Your task to perform on an android device: turn off sleep mode Image 0: 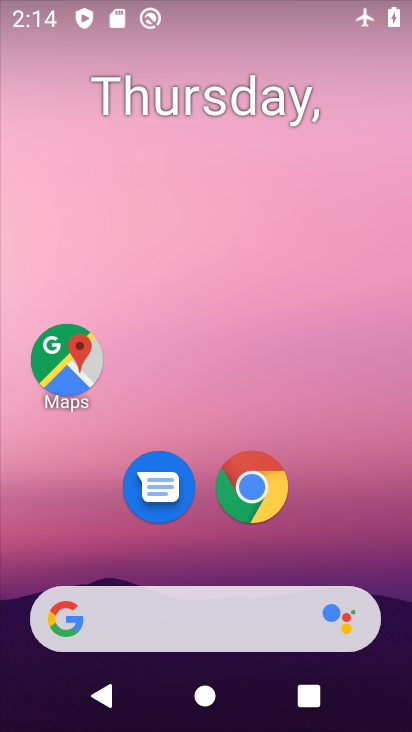
Step 0: drag from (294, 427) to (300, 35)
Your task to perform on an android device: turn off sleep mode Image 1: 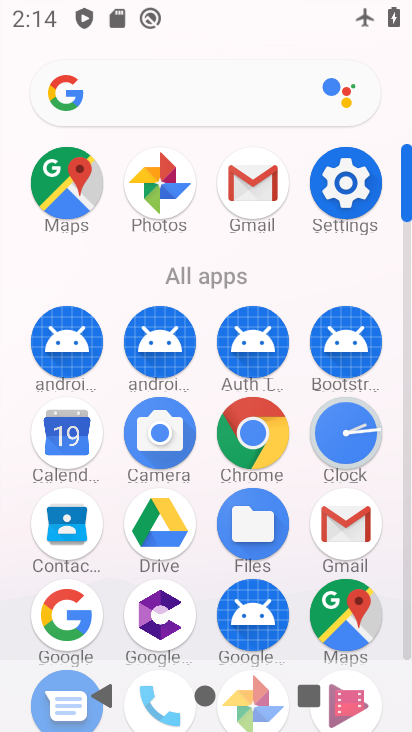
Step 1: click (363, 187)
Your task to perform on an android device: turn off sleep mode Image 2: 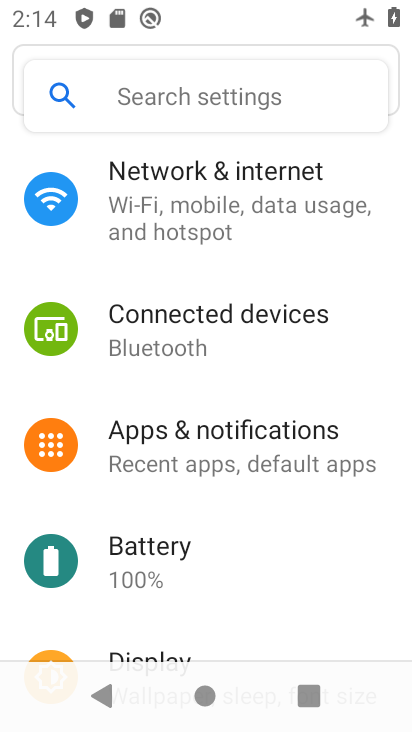
Step 2: drag from (309, 535) to (386, 301)
Your task to perform on an android device: turn off sleep mode Image 3: 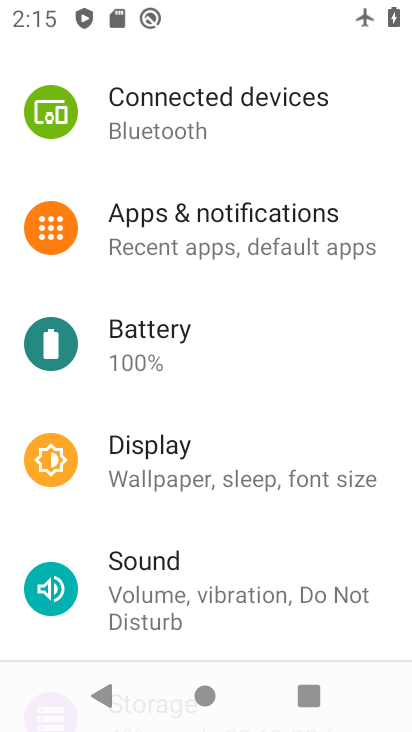
Step 3: click (238, 487)
Your task to perform on an android device: turn off sleep mode Image 4: 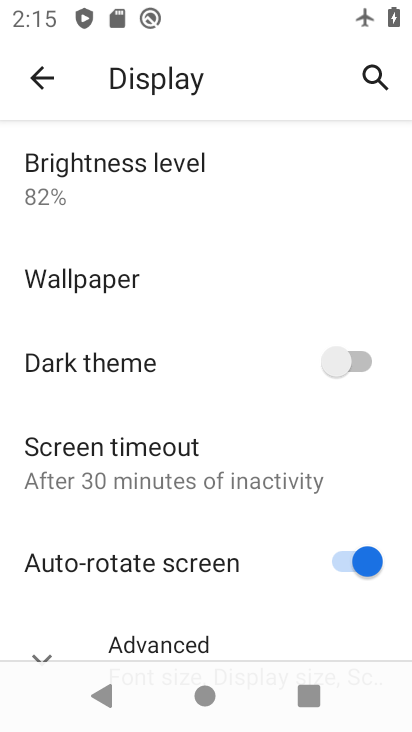
Step 4: drag from (226, 628) to (334, 282)
Your task to perform on an android device: turn off sleep mode Image 5: 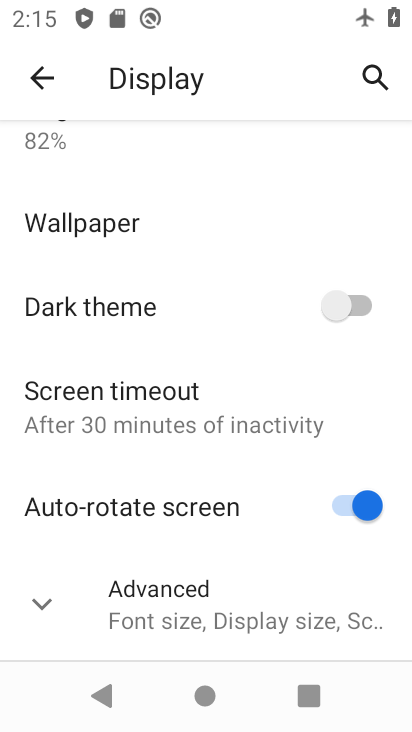
Step 5: click (120, 568)
Your task to perform on an android device: turn off sleep mode Image 6: 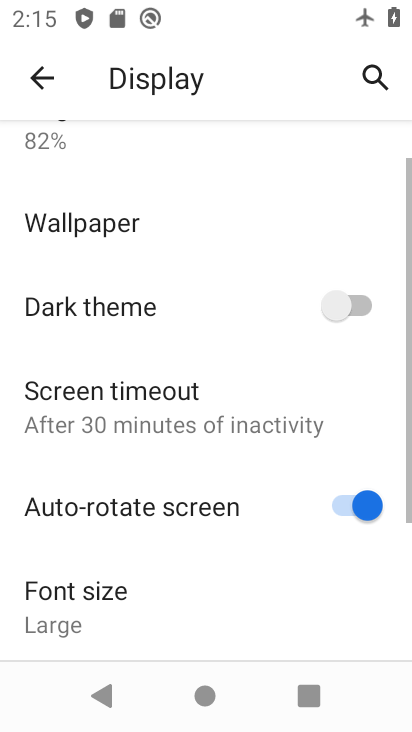
Step 6: drag from (119, 568) to (268, 246)
Your task to perform on an android device: turn off sleep mode Image 7: 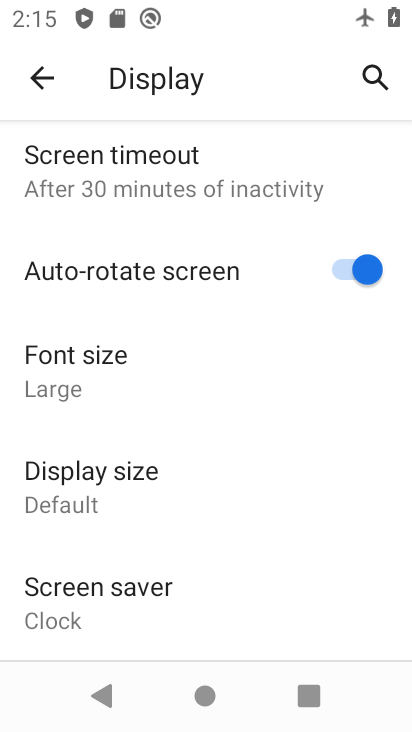
Step 7: drag from (85, 559) to (182, 255)
Your task to perform on an android device: turn off sleep mode Image 8: 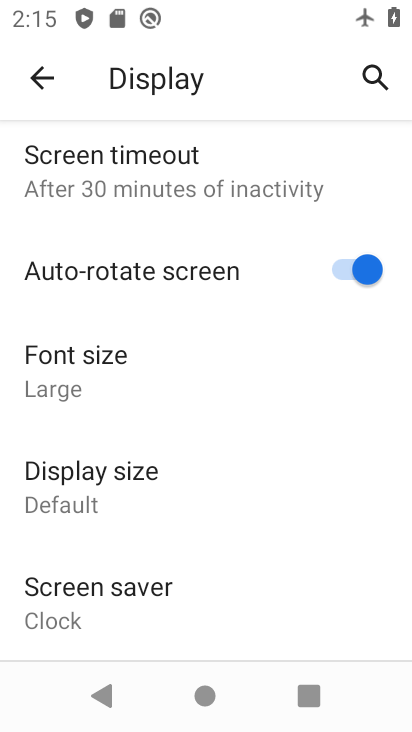
Step 8: press back button
Your task to perform on an android device: turn off sleep mode Image 9: 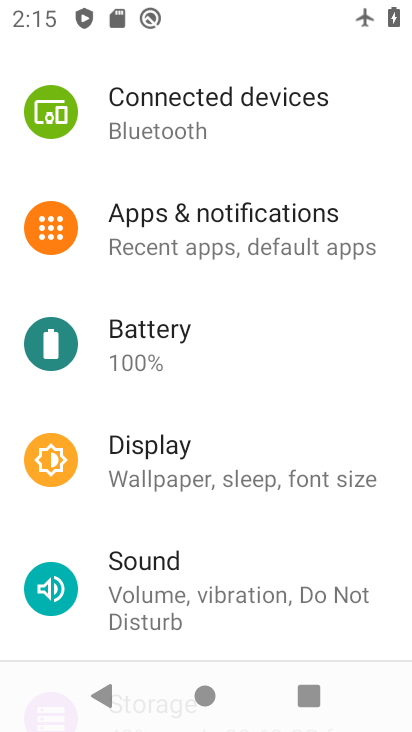
Step 9: drag from (187, 512) to (245, 125)
Your task to perform on an android device: turn off sleep mode Image 10: 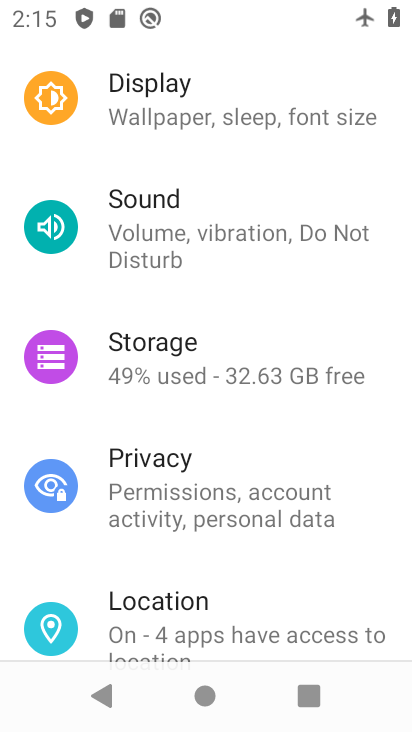
Step 10: drag from (254, 601) to (340, 236)
Your task to perform on an android device: turn off sleep mode Image 11: 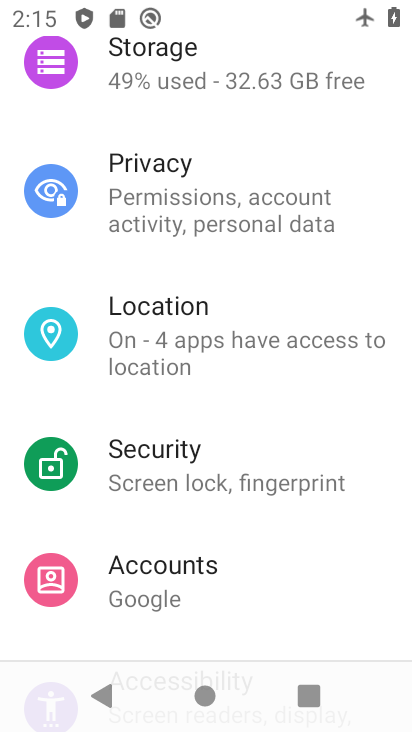
Step 11: drag from (244, 552) to (243, 253)
Your task to perform on an android device: turn off sleep mode Image 12: 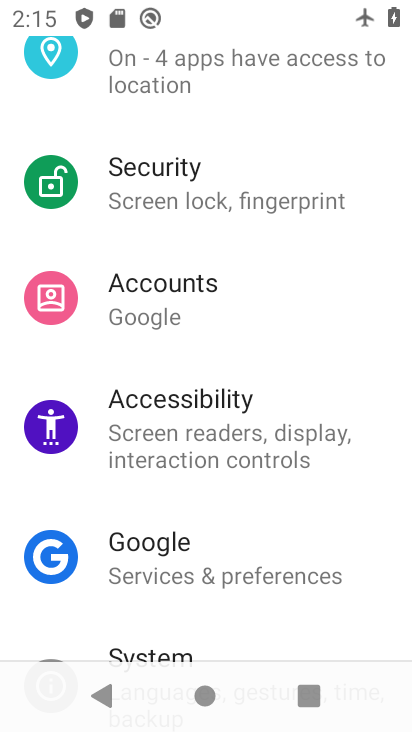
Step 12: drag from (262, 494) to (322, 216)
Your task to perform on an android device: turn off sleep mode Image 13: 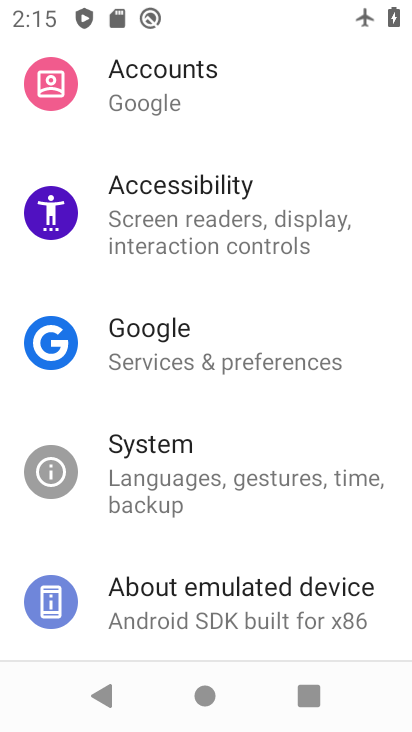
Step 13: drag from (217, 504) to (284, 194)
Your task to perform on an android device: turn off sleep mode Image 14: 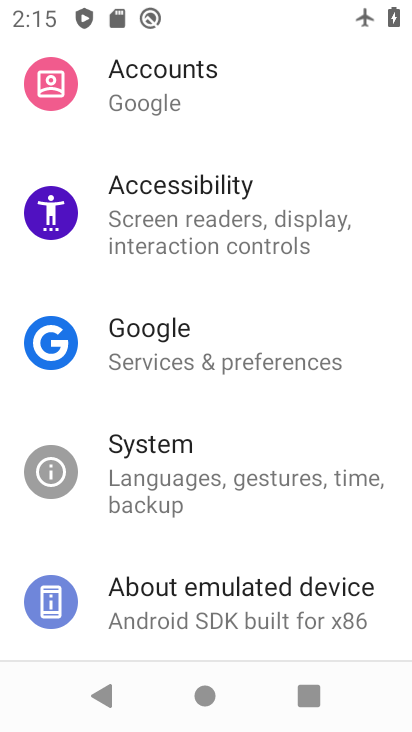
Step 14: click (167, 578)
Your task to perform on an android device: turn off sleep mode Image 15: 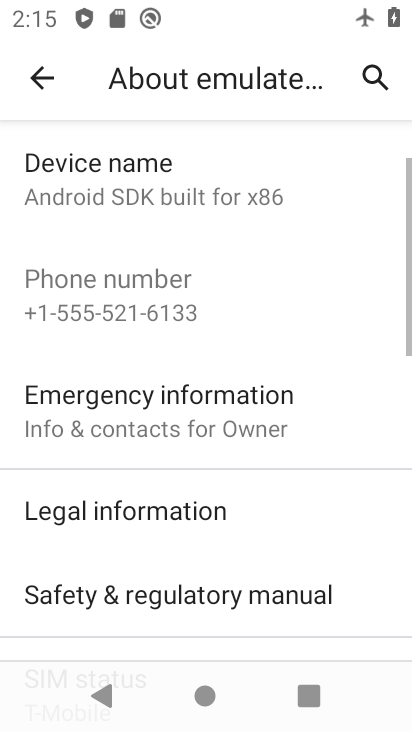
Step 15: task complete